Your task to perform on an android device: Go to privacy settings Image 0: 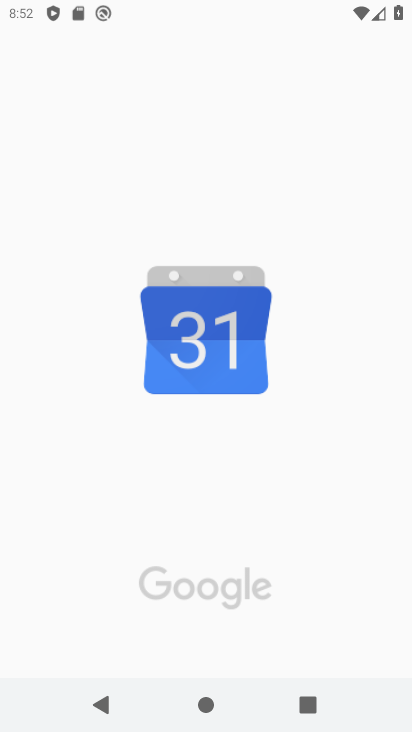
Step 0: drag from (232, 514) to (270, 142)
Your task to perform on an android device: Go to privacy settings Image 1: 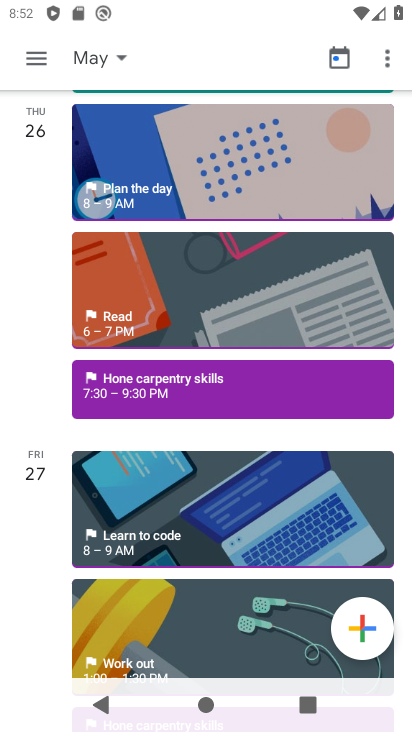
Step 1: press home button
Your task to perform on an android device: Go to privacy settings Image 2: 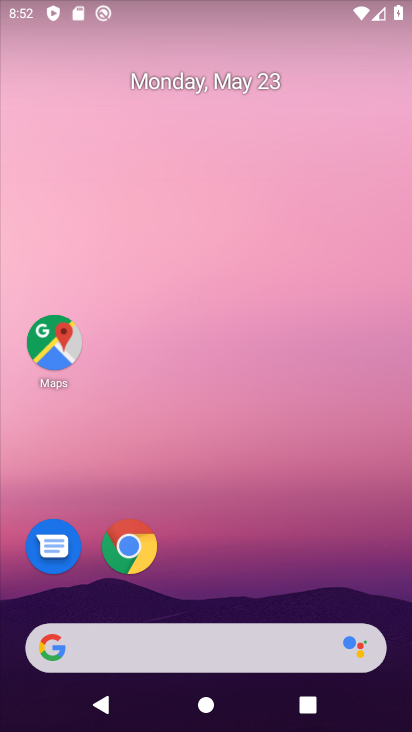
Step 2: drag from (297, 539) to (263, 105)
Your task to perform on an android device: Go to privacy settings Image 3: 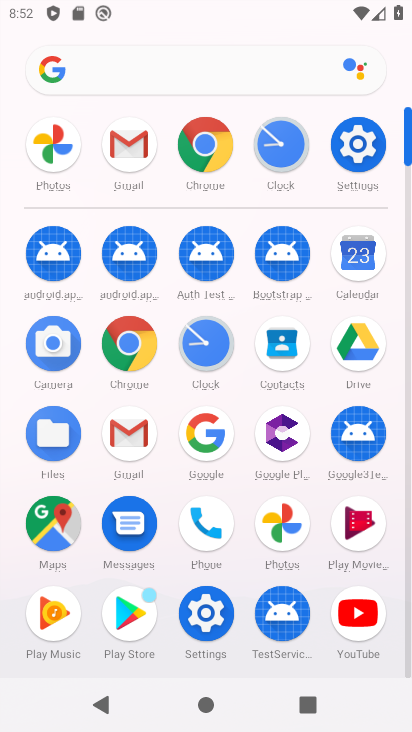
Step 3: click (380, 142)
Your task to perform on an android device: Go to privacy settings Image 4: 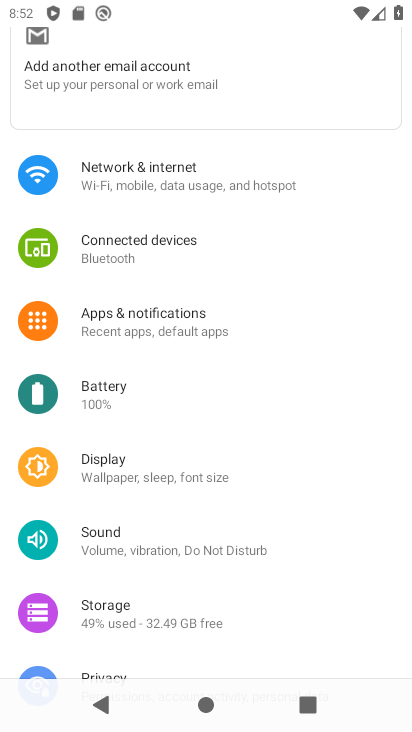
Step 4: drag from (194, 526) to (245, 247)
Your task to perform on an android device: Go to privacy settings Image 5: 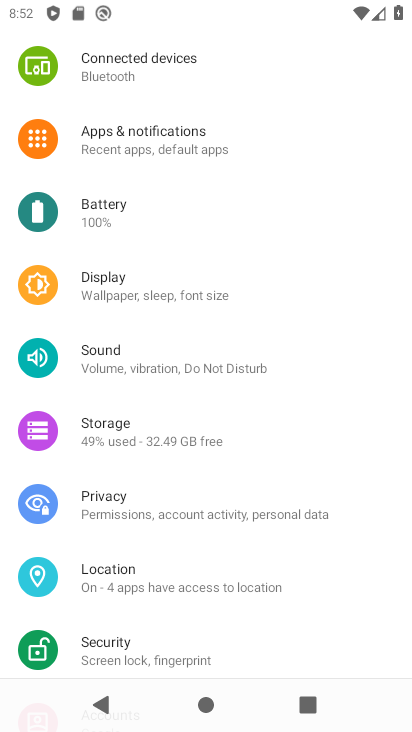
Step 5: click (196, 506)
Your task to perform on an android device: Go to privacy settings Image 6: 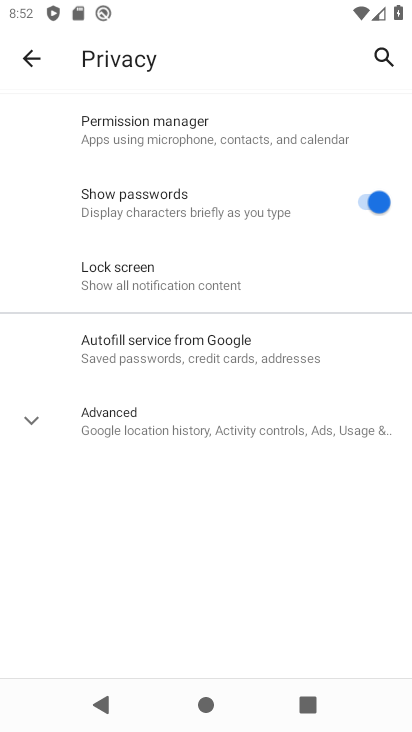
Step 6: task complete